Your task to perform on an android device: Go to notification settings Image 0: 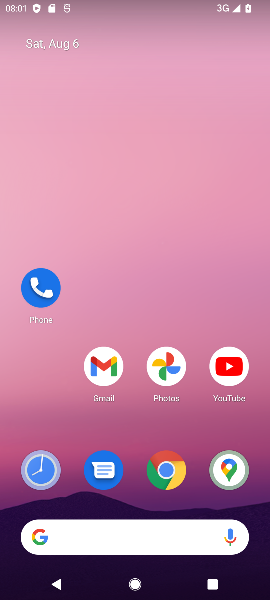
Step 0: press home button
Your task to perform on an android device: Go to notification settings Image 1: 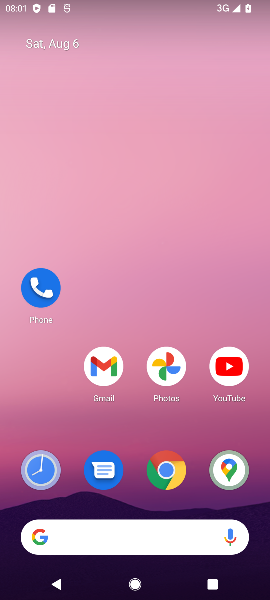
Step 1: drag from (93, 485) to (255, 56)
Your task to perform on an android device: Go to notification settings Image 2: 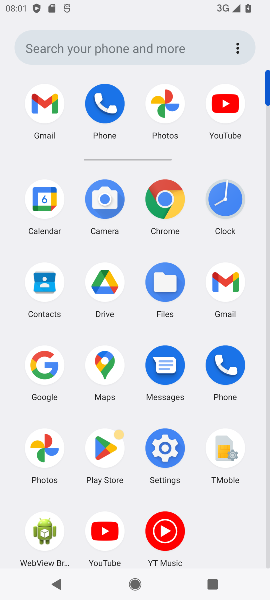
Step 2: click (169, 476)
Your task to perform on an android device: Go to notification settings Image 3: 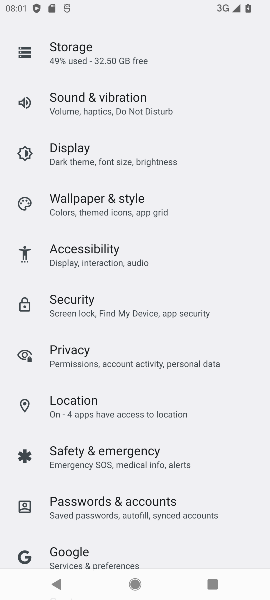
Step 3: drag from (143, 148) to (117, 595)
Your task to perform on an android device: Go to notification settings Image 4: 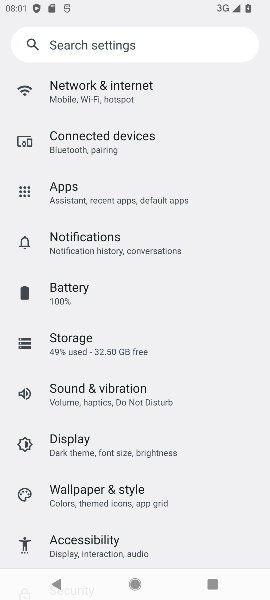
Step 4: click (109, 208)
Your task to perform on an android device: Go to notification settings Image 5: 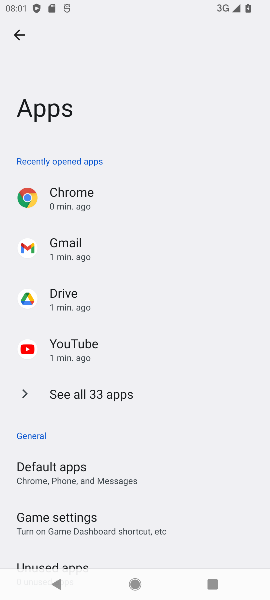
Step 5: press back button
Your task to perform on an android device: Go to notification settings Image 6: 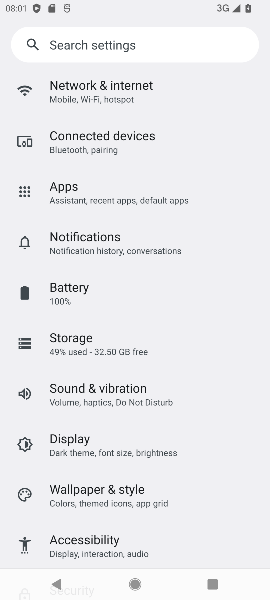
Step 6: click (62, 247)
Your task to perform on an android device: Go to notification settings Image 7: 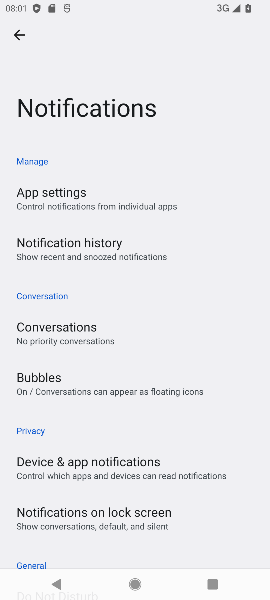
Step 7: task complete